Your task to perform on an android device: change alarm snooze length Image 0: 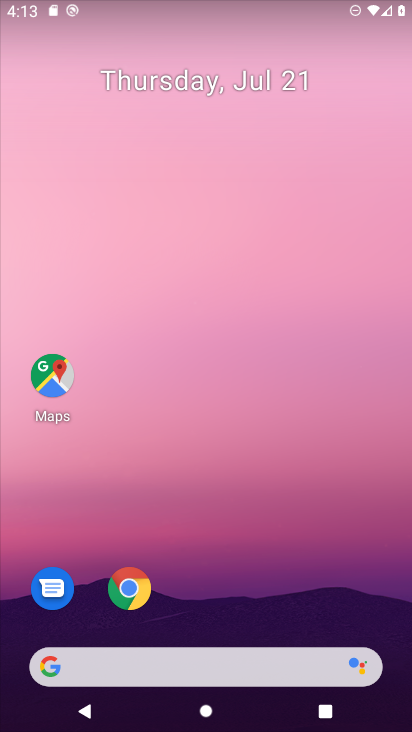
Step 0: drag from (290, 651) to (324, 1)
Your task to perform on an android device: change alarm snooze length Image 1: 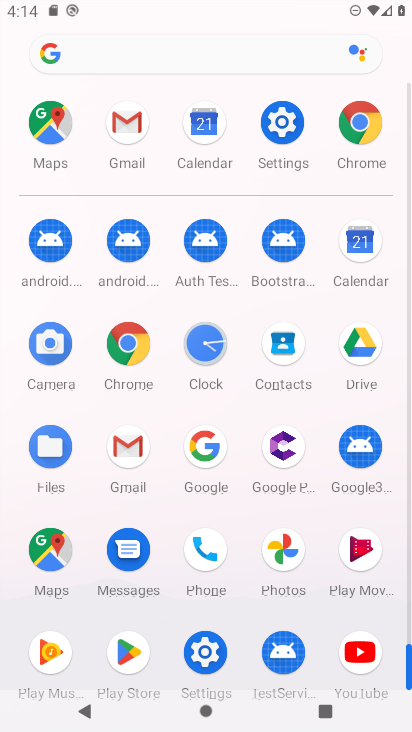
Step 1: click (212, 346)
Your task to perform on an android device: change alarm snooze length Image 2: 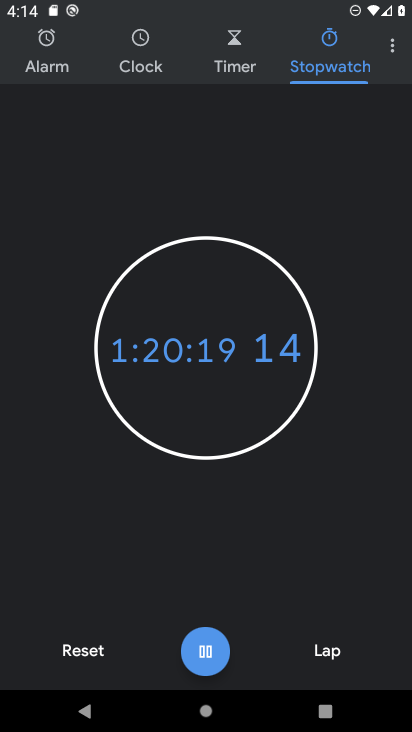
Step 2: click (392, 50)
Your task to perform on an android device: change alarm snooze length Image 3: 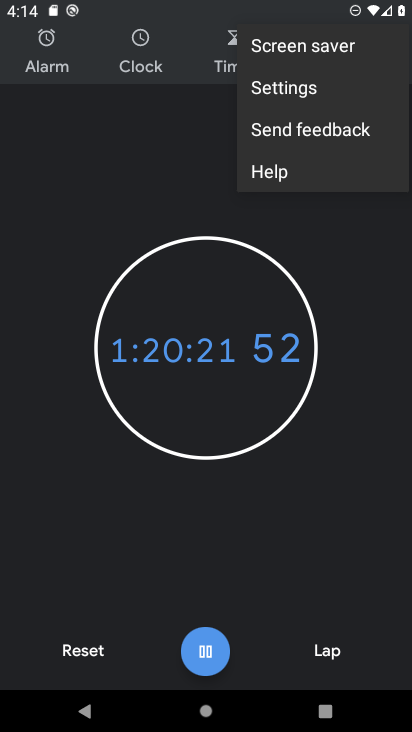
Step 3: click (276, 95)
Your task to perform on an android device: change alarm snooze length Image 4: 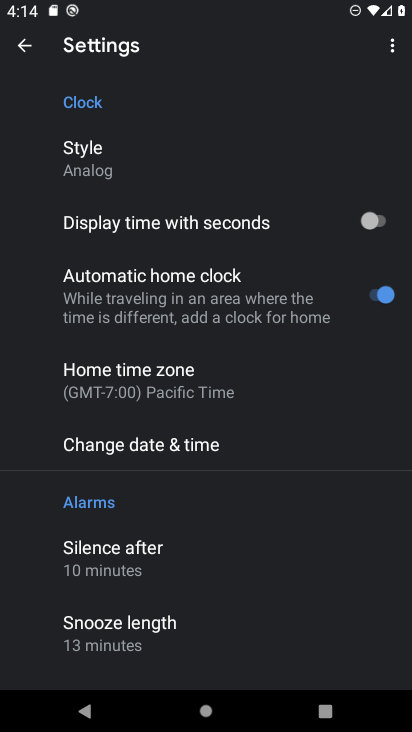
Step 4: drag from (143, 619) to (183, 420)
Your task to perform on an android device: change alarm snooze length Image 5: 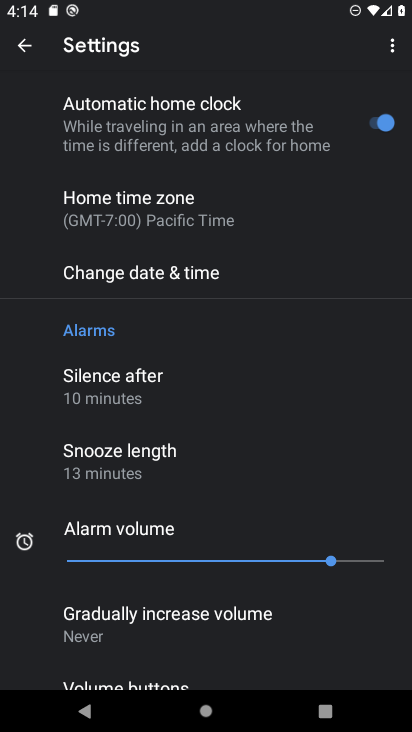
Step 5: click (157, 466)
Your task to perform on an android device: change alarm snooze length Image 6: 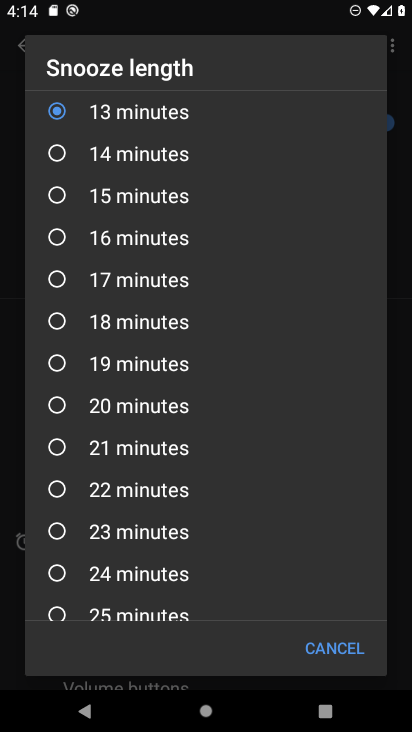
Step 6: click (64, 160)
Your task to perform on an android device: change alarm snooze length Image 7: 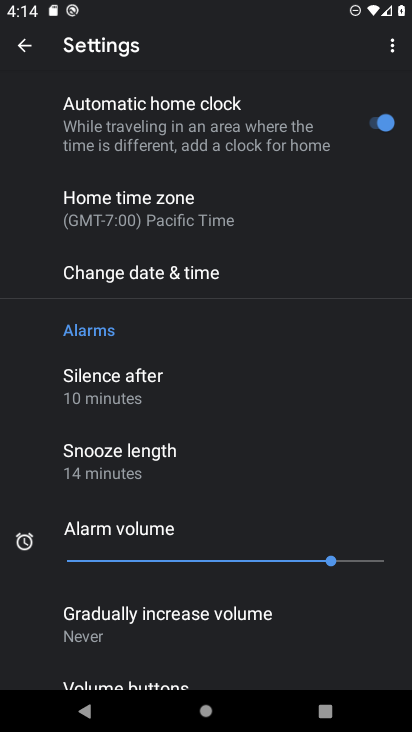
Step 7: task complete